Your task to perform on an android device: Open Google Chrome Image 0: 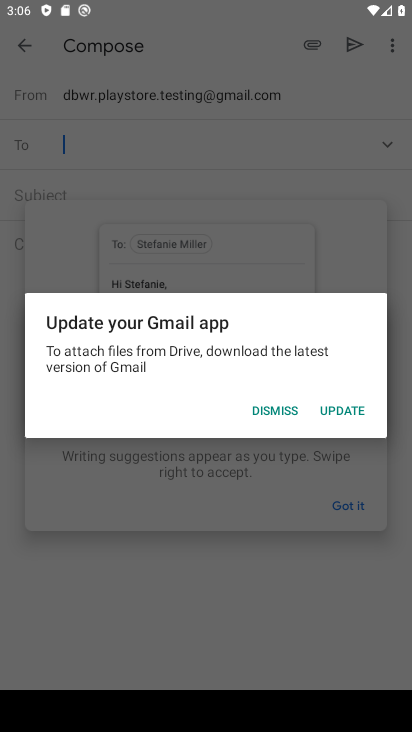
Step 0: press home button
Your task to perform on an android device: Open Google Chrome Image 1: 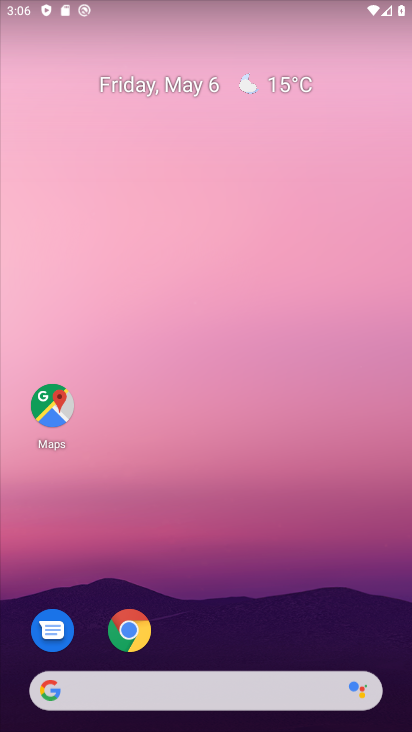
Step 1: click (127, 626)
Your task to perform on an android device: Open Google Chrome Image 2: 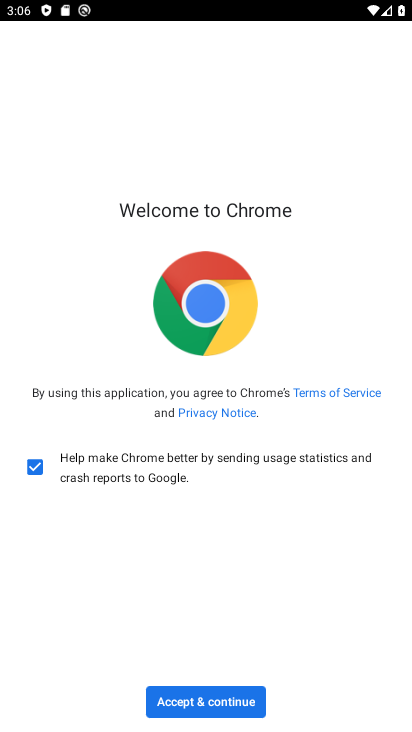
Step 2: click (176, 693)
Your task to perform on an android device: Open Google Chrome Image 3: 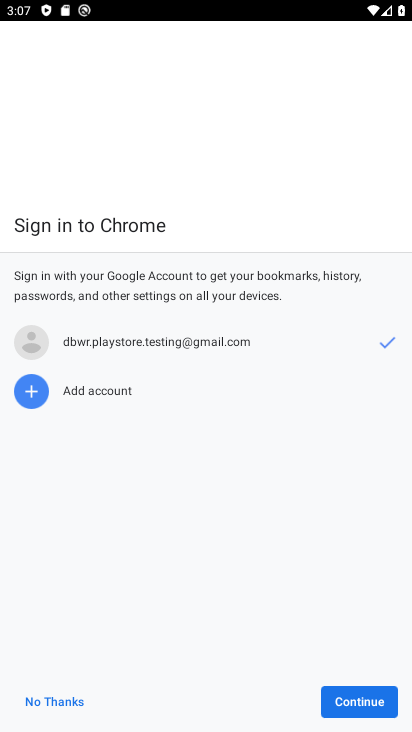
Step 3: click (358, 691)
Your task to perform on an android device: Open Google Chrome Image 4: 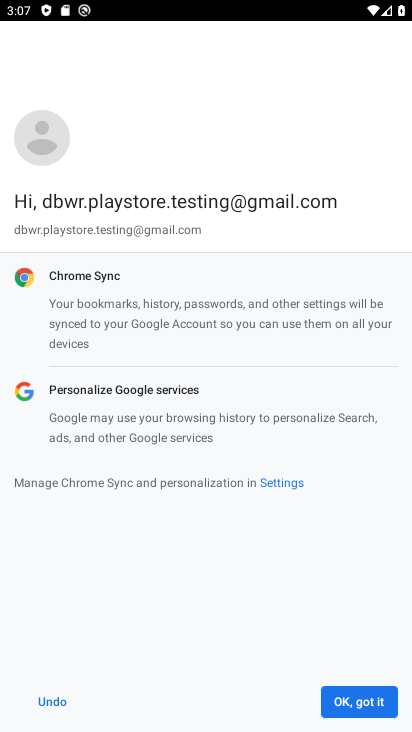
Step 4: click (358, 691)
Your task to perform on an android device: Open Google Chrome Image 5: 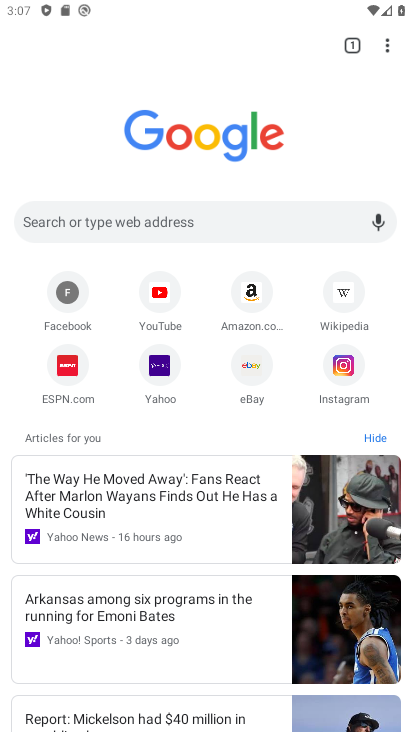
Step 5: task complete